Your task to perform on an android device: Go to Android settings Image 0: 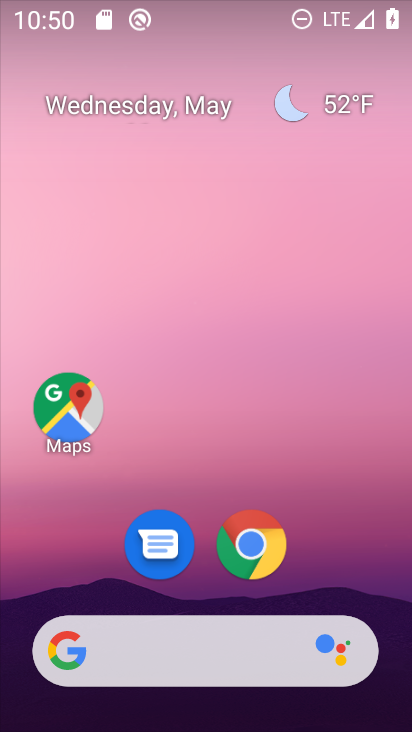
Step 0: drag from (211, 583) to (183, 18)
Your task to perform on an android device: Go to Android settings Image 1: 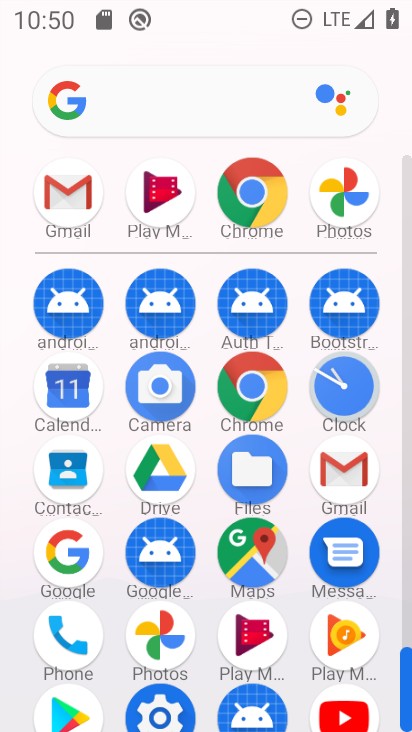
Step 1: drag from (145, 576) to (204, 159)
Your task to perform on an android device: Go to Android settings Image 2: 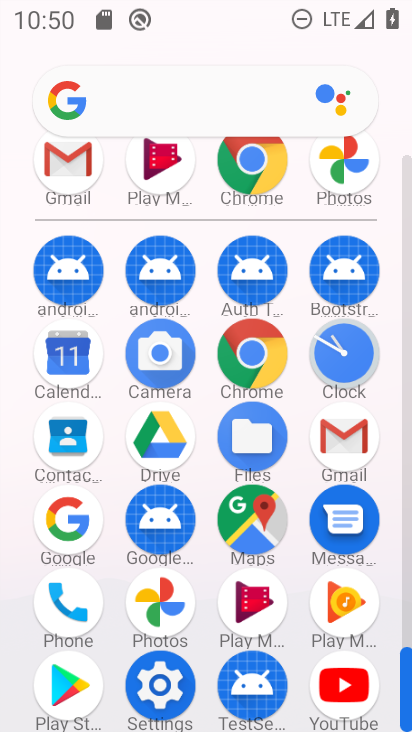
Step 2: click (158, 669)
Your task to perform on an android device: Go to Android settings Image 3: 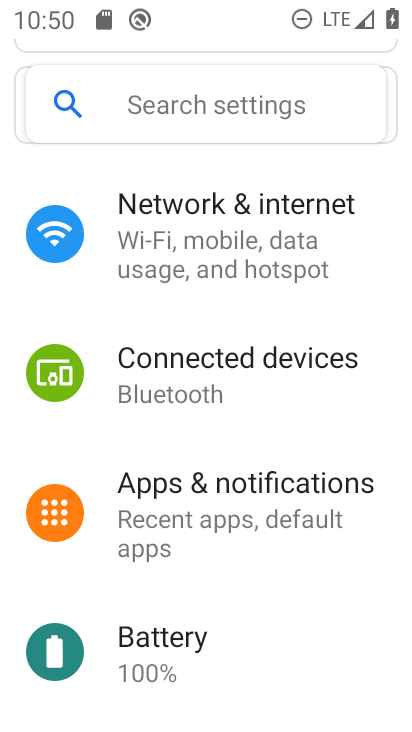
Step 3: drag from (167, 641) to (188, 247)
Your task to perform on an android device: Go to Android settings Image 4: 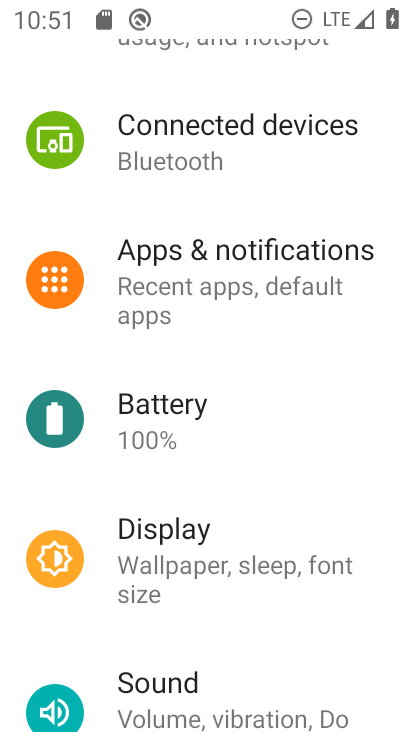
Step 4: drag from (172, 677) to (214, 73)
Your task to perform on an android device: Go to Android settings Image 5: 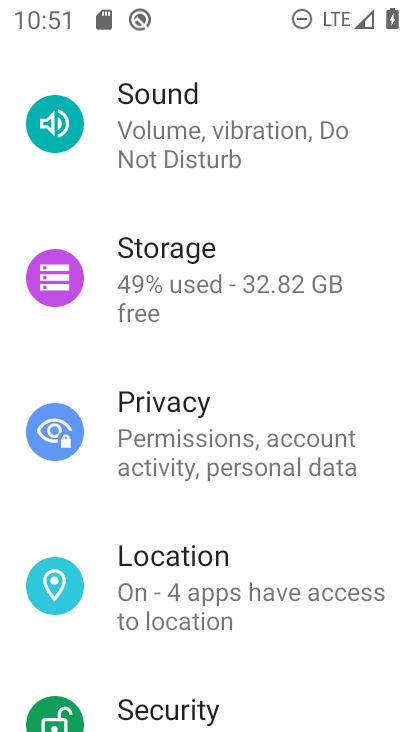
Step 5: drag from (176, 675) to (236, 37)
Your task to perform on an android device: Go to Android settings Image 6: 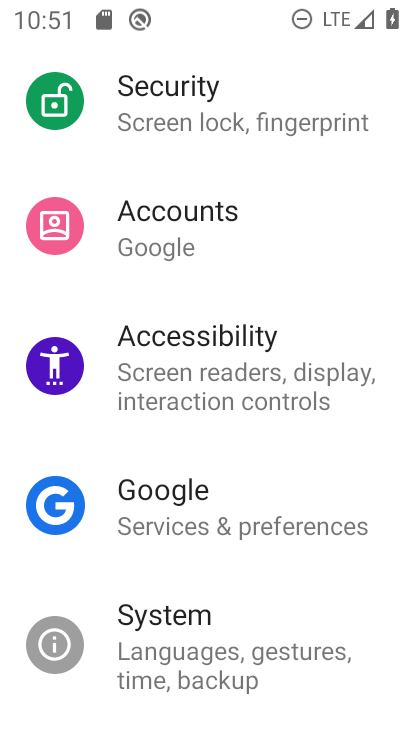
Step 6: drag from (152, 632) to (198, 146)
Your task to perform on an android device: Go to Android settings Image 7: 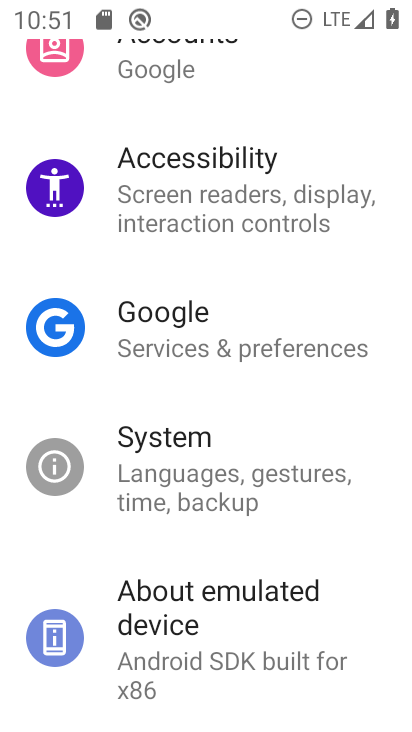
Step 7: click (148, 628)
Your task to perform on an android device: Go to Android settings Image 8: 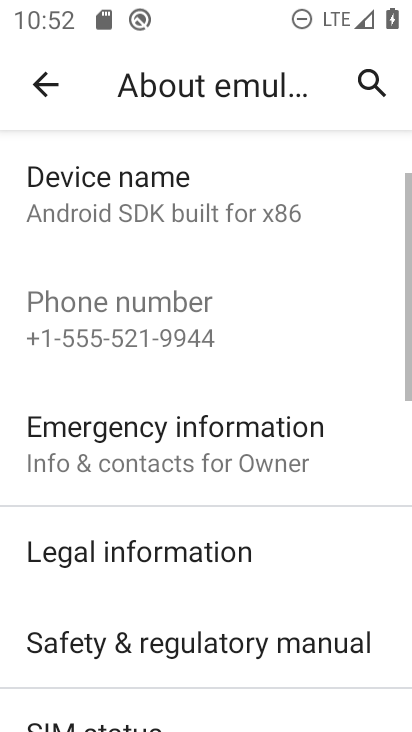
Step 8: task complete